Your task to perform on an android device: Go to battery settings Image 0: 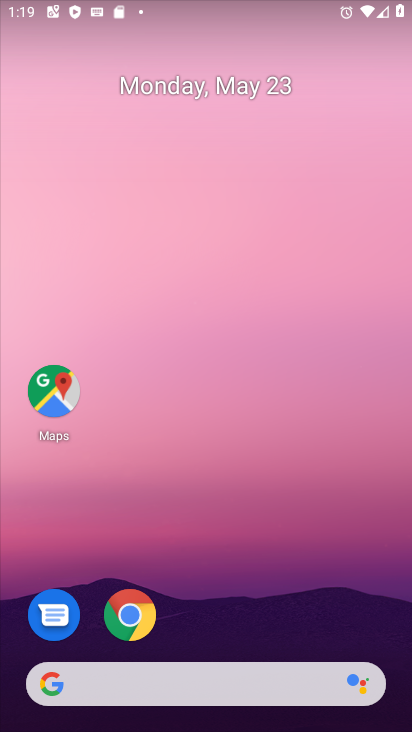
Step 0: drag from (184, 722) to (197, 124)
Your task to perform on an android device: Go to battery settings Image 1: 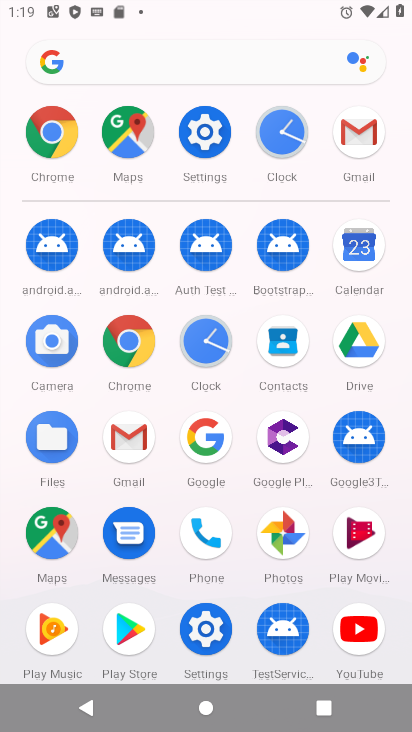
Step 1: click (212, 136)
Your task to perform on an android device: Go to battery settings Image 2: 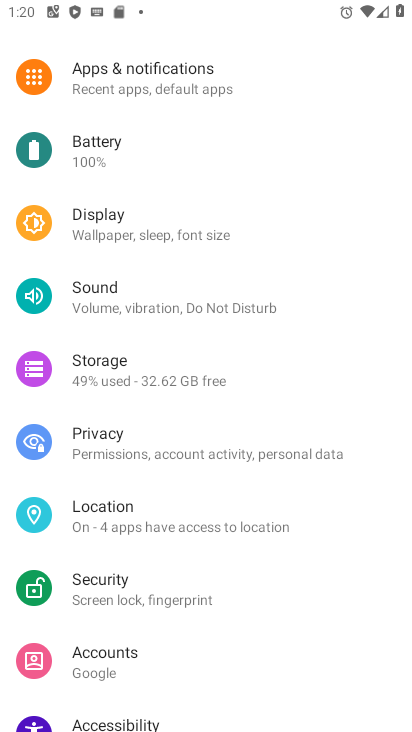
Step 2: click (91, 140)
Your task to perform on an android device: Go to battery settings Image 3: 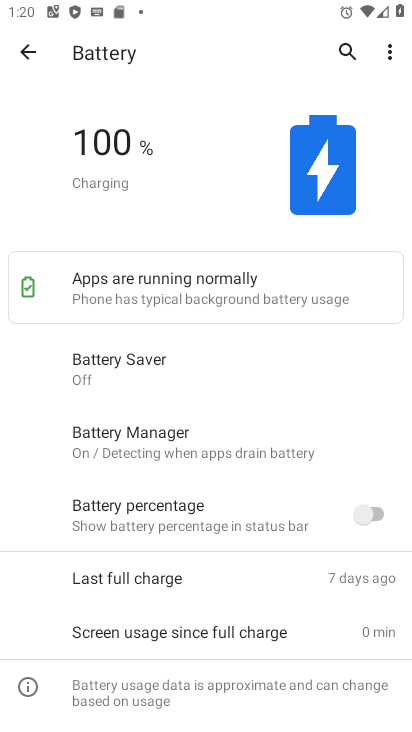
Step 3: task complete